Your task to perform on an android device: open sync settings in chrome Image 0: 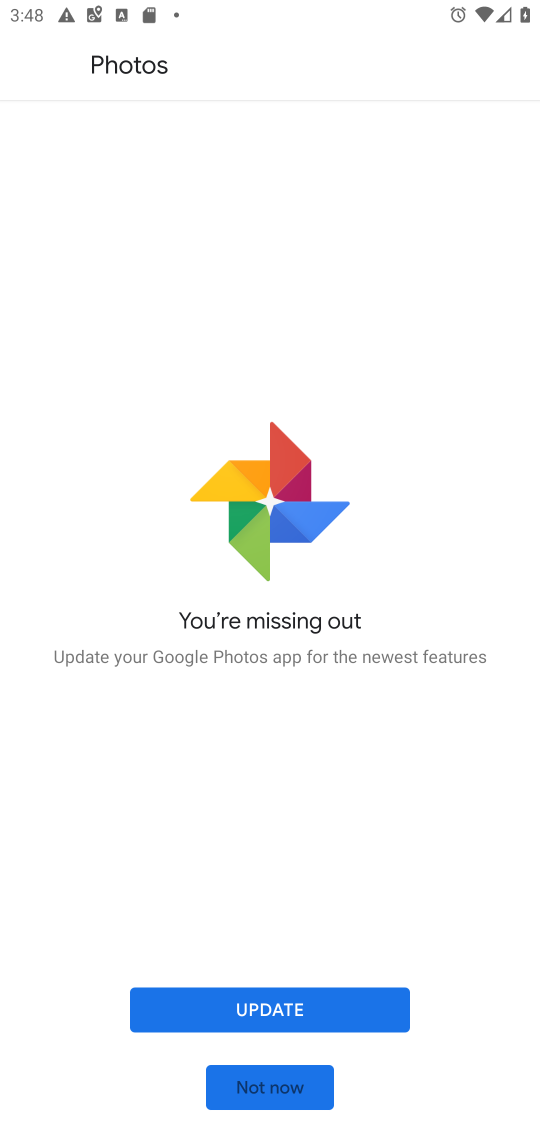
Step 0: press home button
Your task to perform on an android device: open sync settings in chrome Image 1: 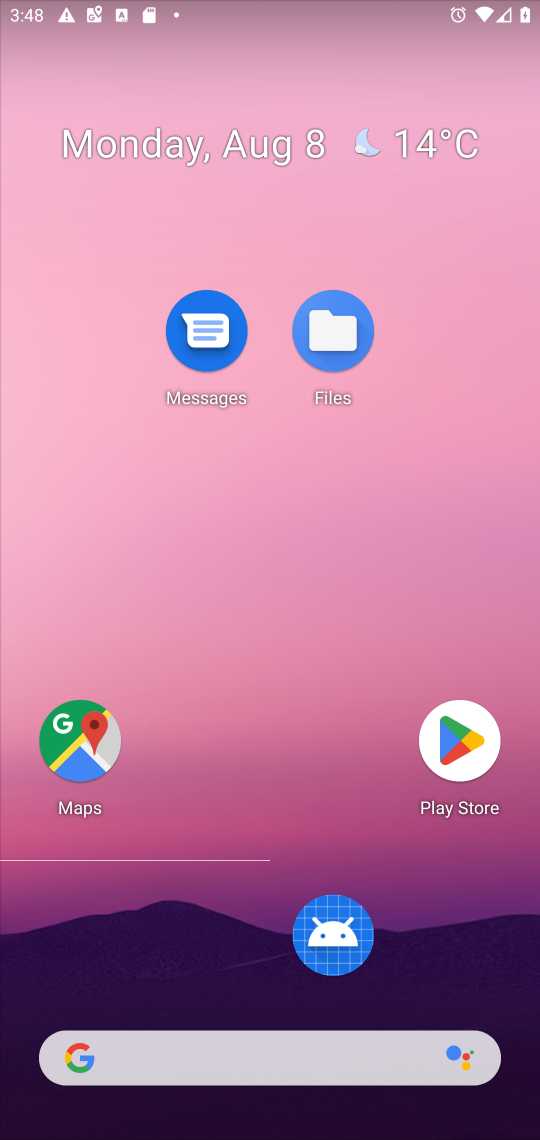
Step 1: drag from (269, 1039) to (145, 86)
Your task to perform on an android device: open sync settings in chrome Image 2: 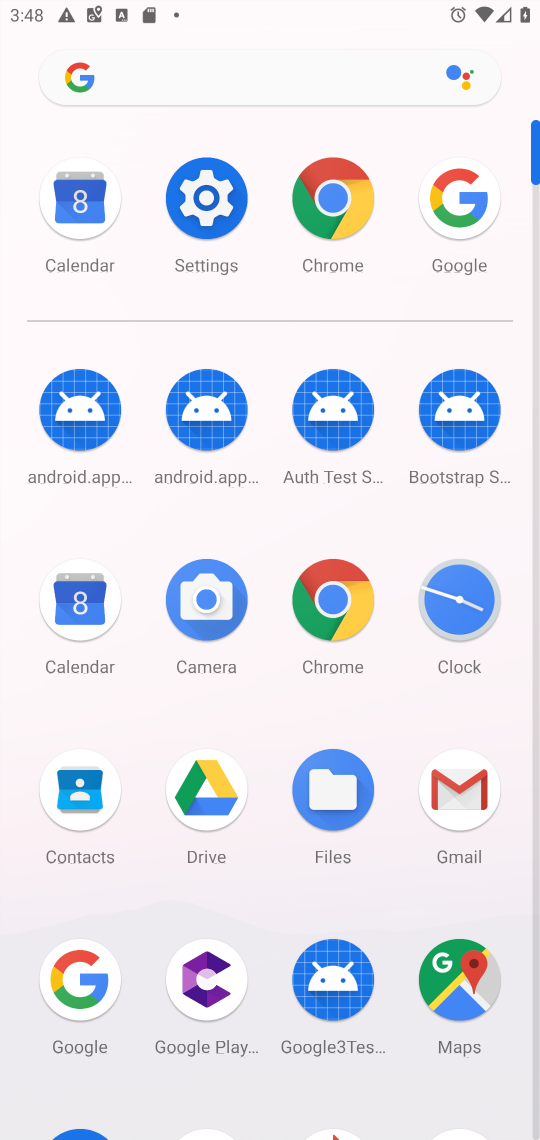
Step 2: click (338, 596)
Your task to perform on an android device: open sync settings in chrome Image 3: 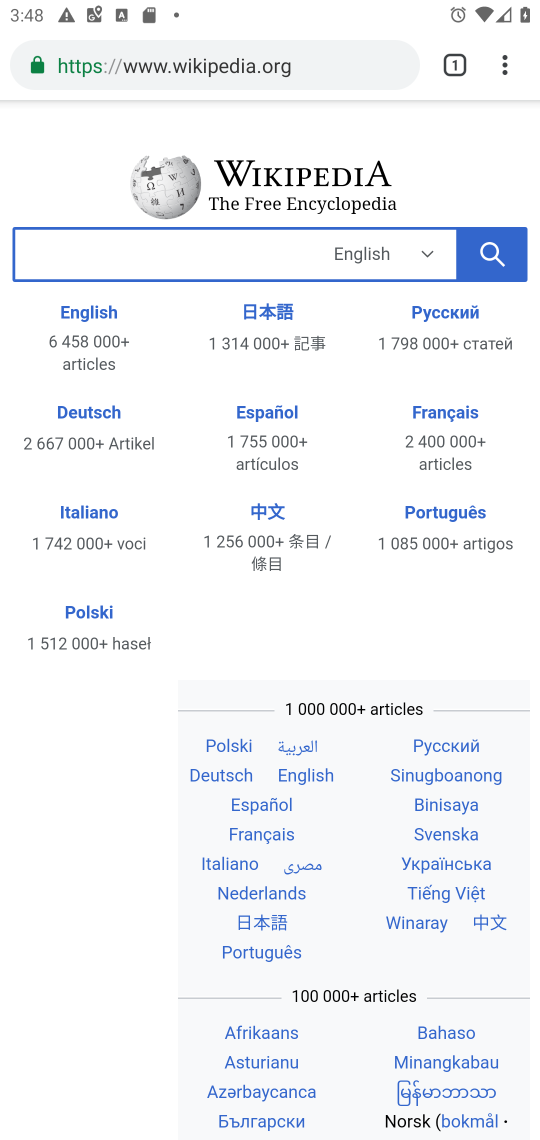
Step 3: click (503, 60)
Your task to perform on an android device: open sync settings in chrome Image 4: 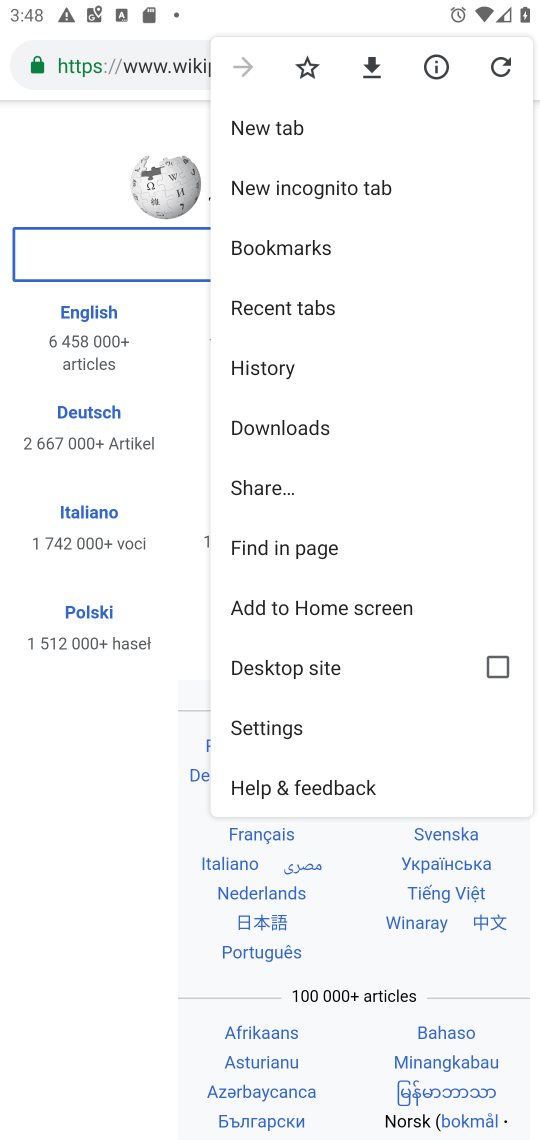
Step 4: click (299, 742)
Your task to perform on an android device: open sync settings in chrome Image 5: 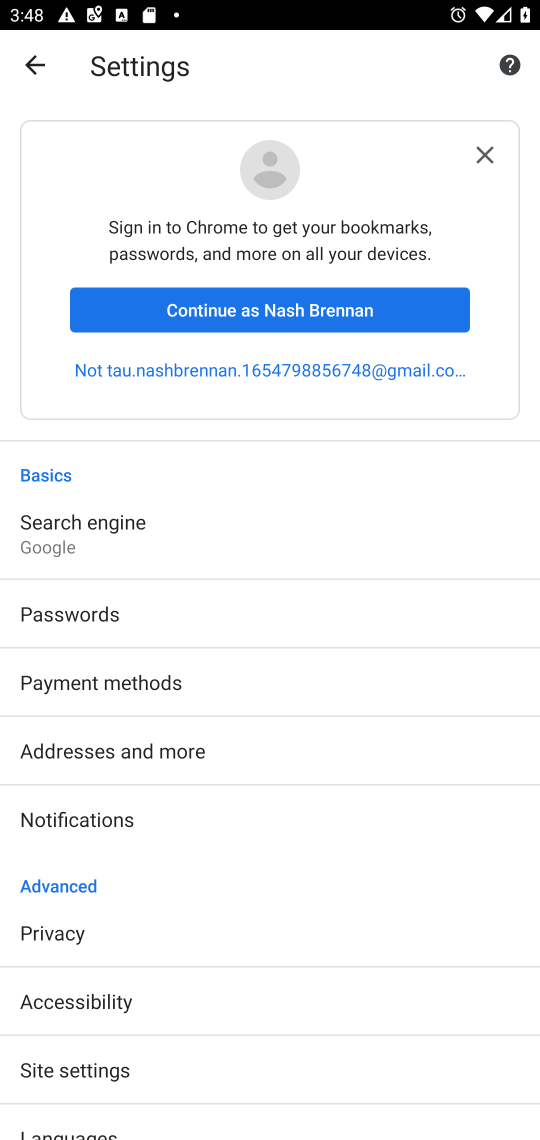
Step 5: click (149, 1065)
Your task to perform on an android device: open sync settings in chrome Image 6: 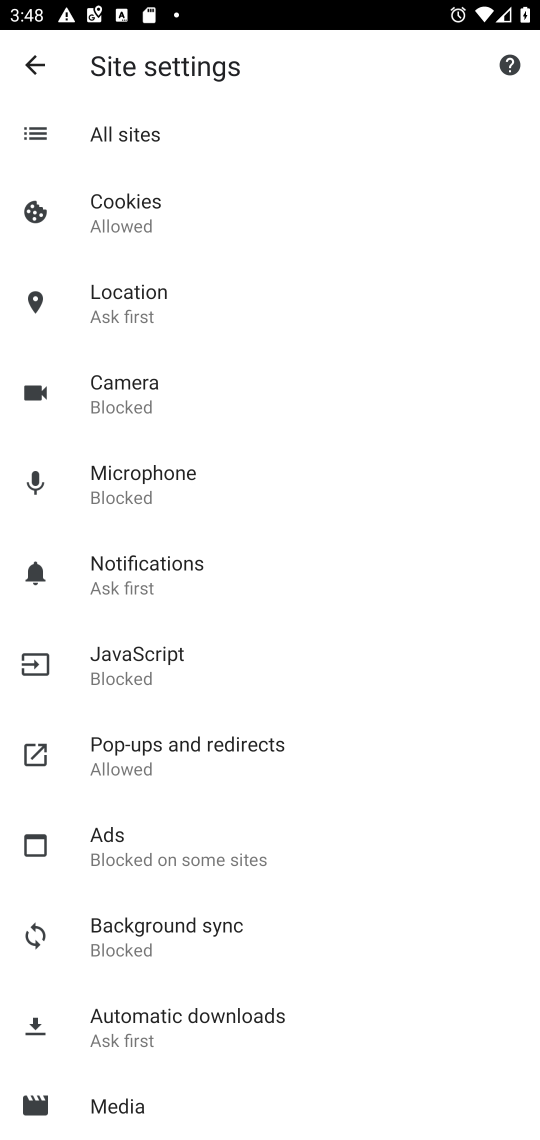
Step 6: click (205, 922)
Your task to perform on an android device: open sync settings in chrome Image 7: 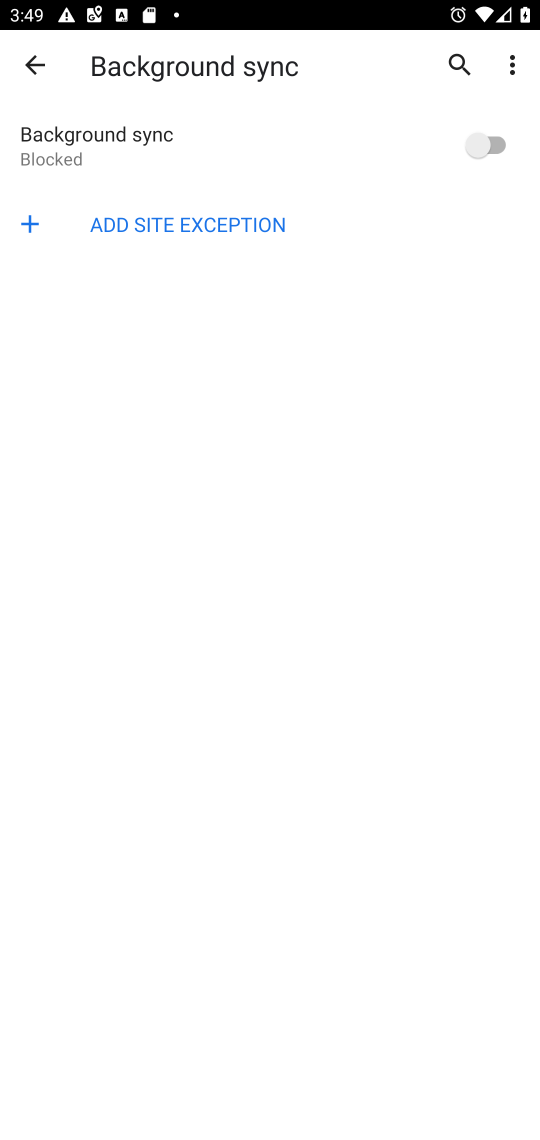
Step 7: task complete